Your task to perform on an android device: open app "Yahoo Mail" Image 0: 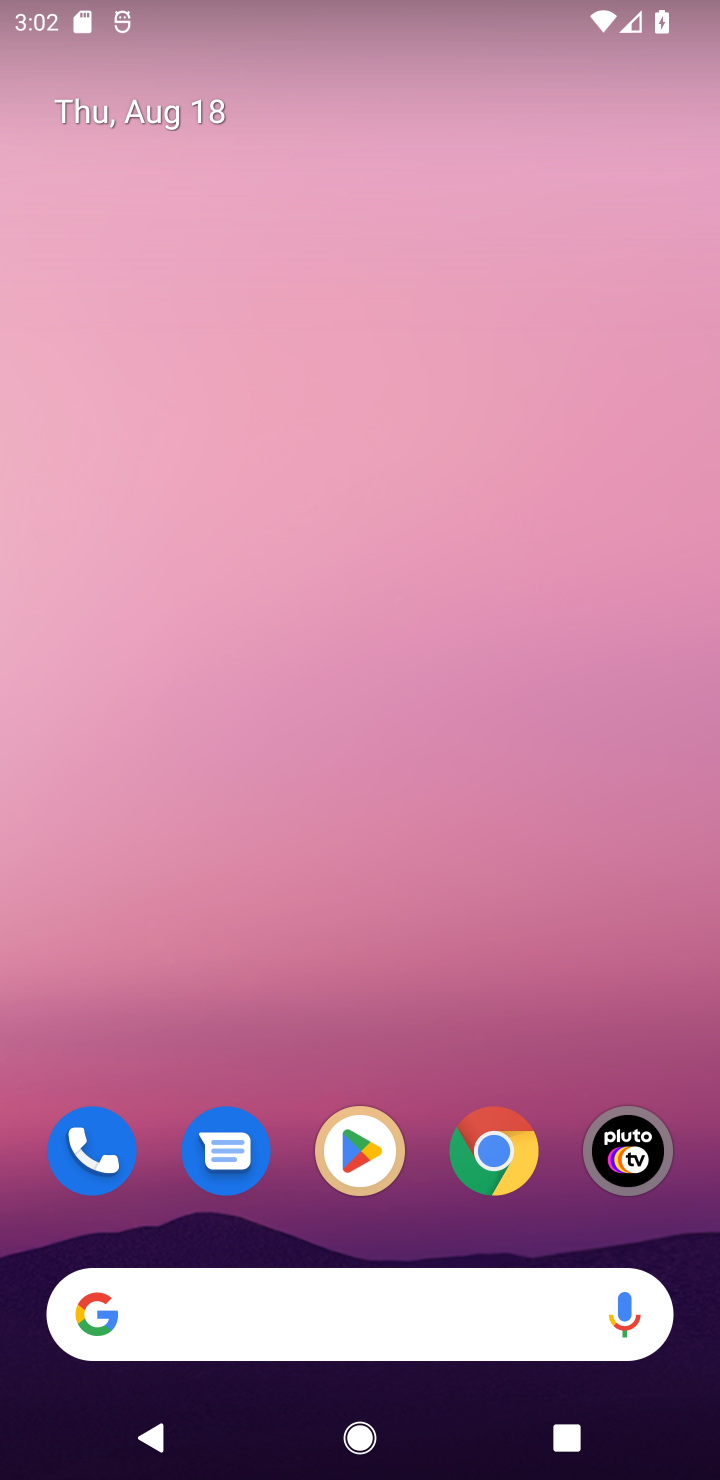
Step 0: drag from (292, 1228) to (190, 41)
Your task to perform on an android device: open app "Yahoo Mail" Image 1: 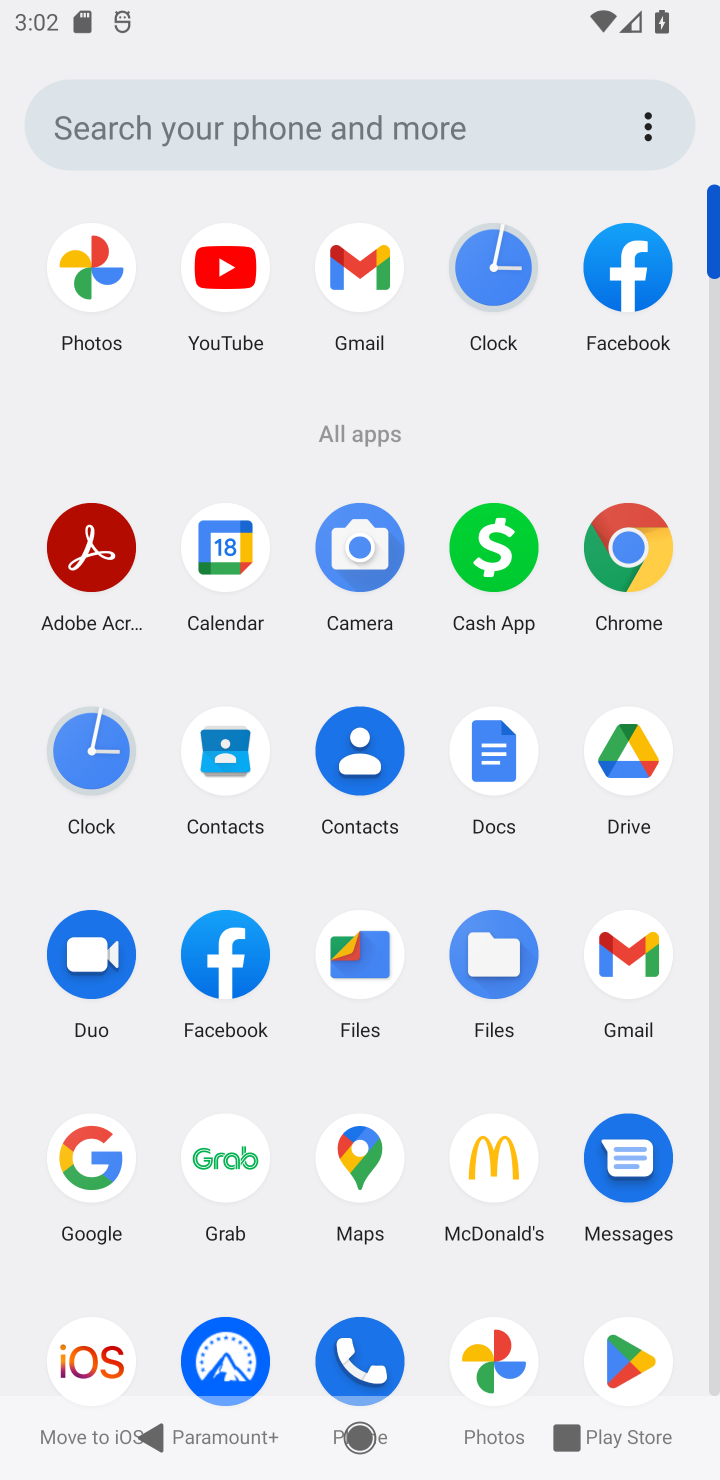
Step 1: click (715, 1396)
Your task to perform on an android device: open app "Yahoo Mail" Image 2: 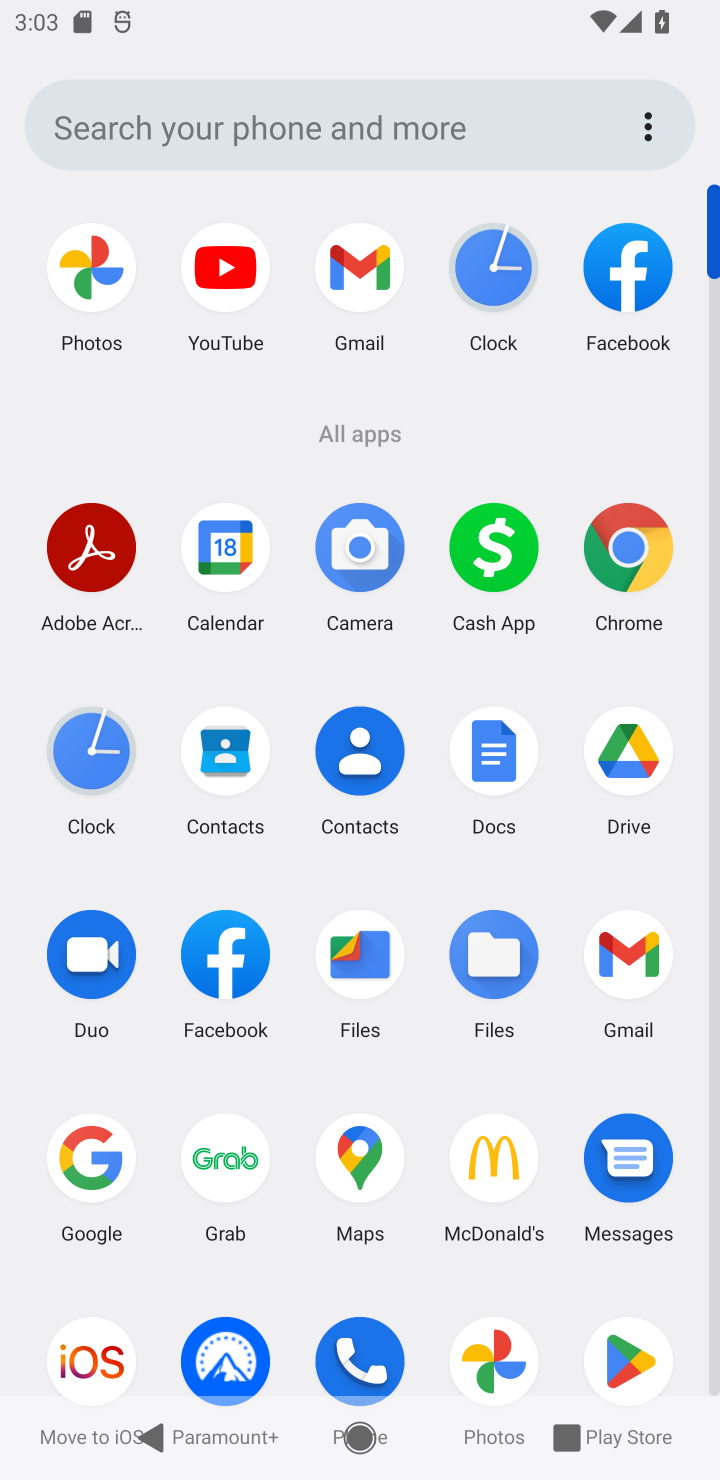
Step 2: click (713, 1381)
Your task to perform on an android device: open app "Yahoo Mail" Image 3: 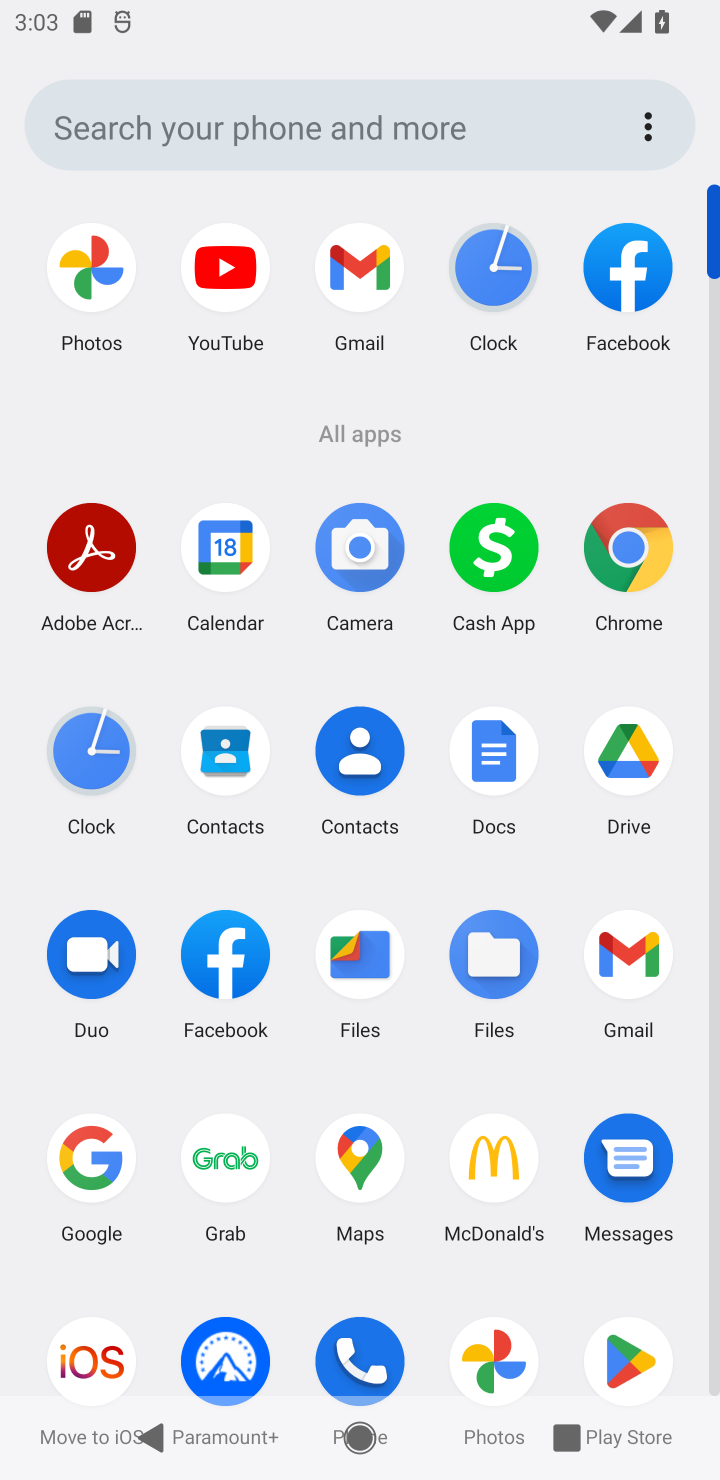
Step 3: click (713, 1381)
Your task to perform on an android device: open app "Yahoo Mail" Image 4: 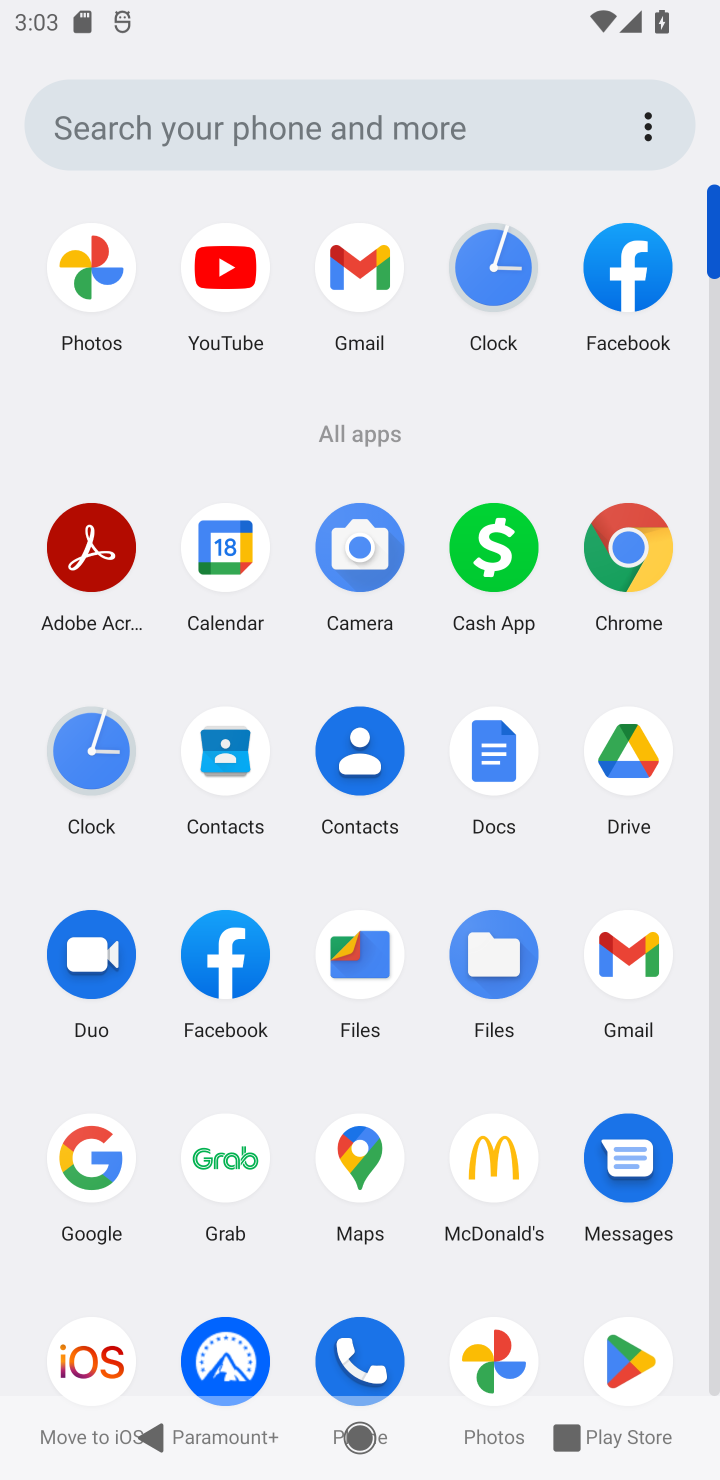
Step 4: click (713, 1381)
Your task to perform on an android device: open app "Yahoo Mail" Image 5: 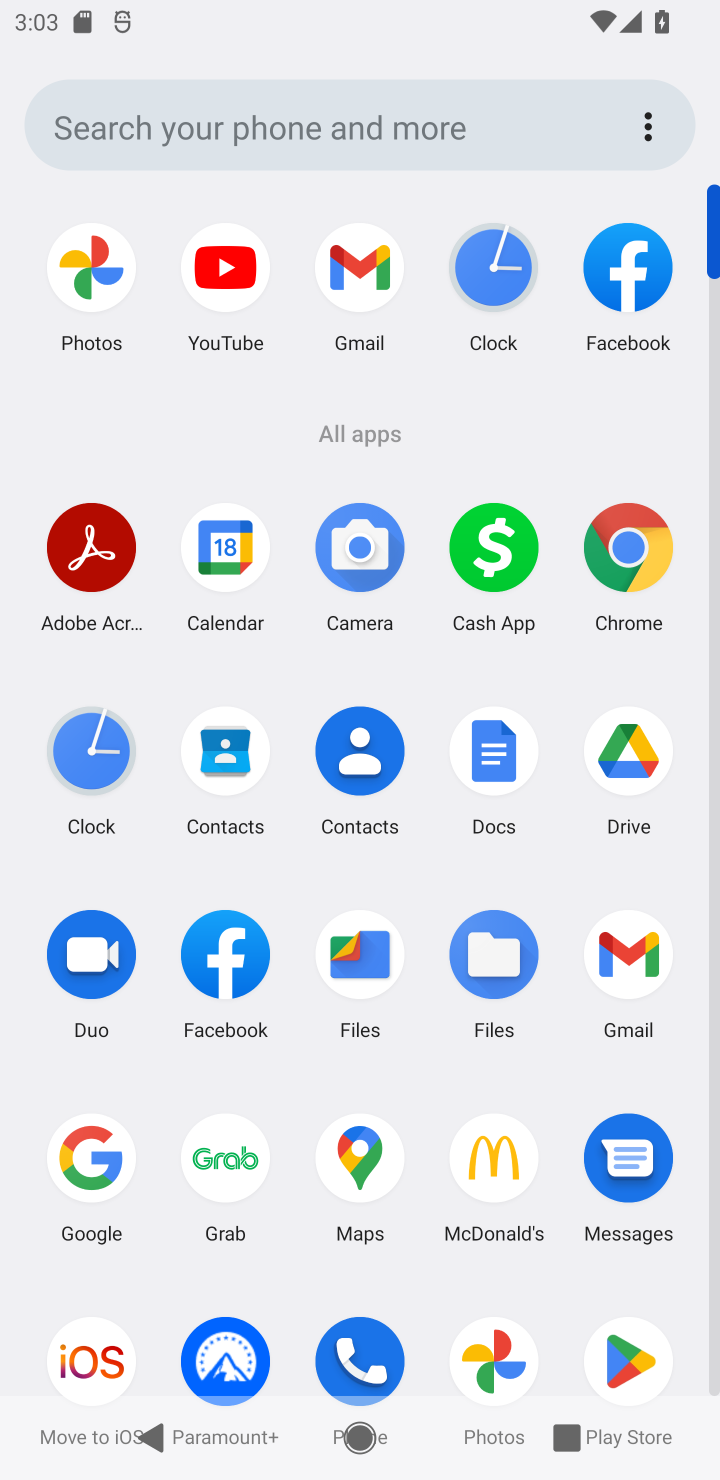
Step 5: drag from (714, 249) to (719, 1322)
Your task to perform on an android device: open app "Yahoo Mail" Image 6: 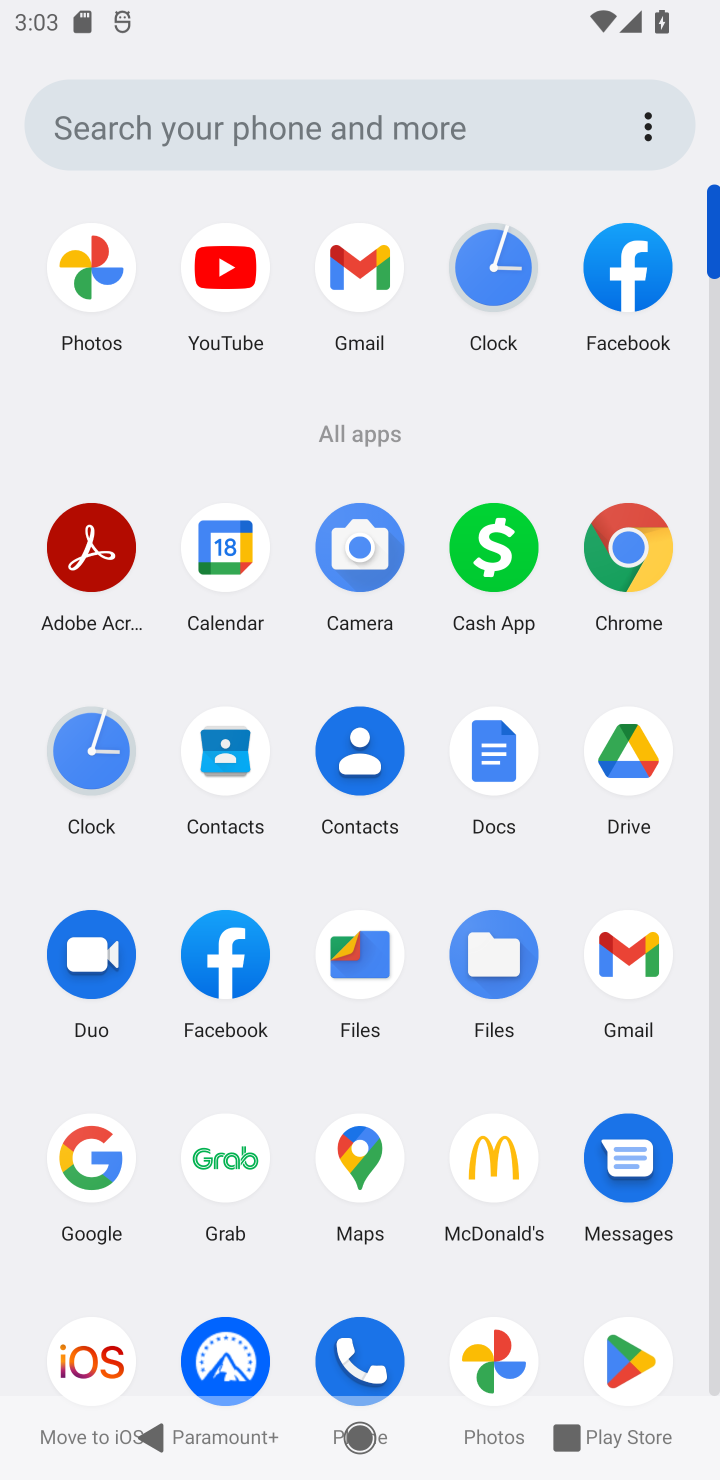
Step 6: click (716, 1433)
Your task to perform on an android device: open app "Yahoo Mail" Image 7: 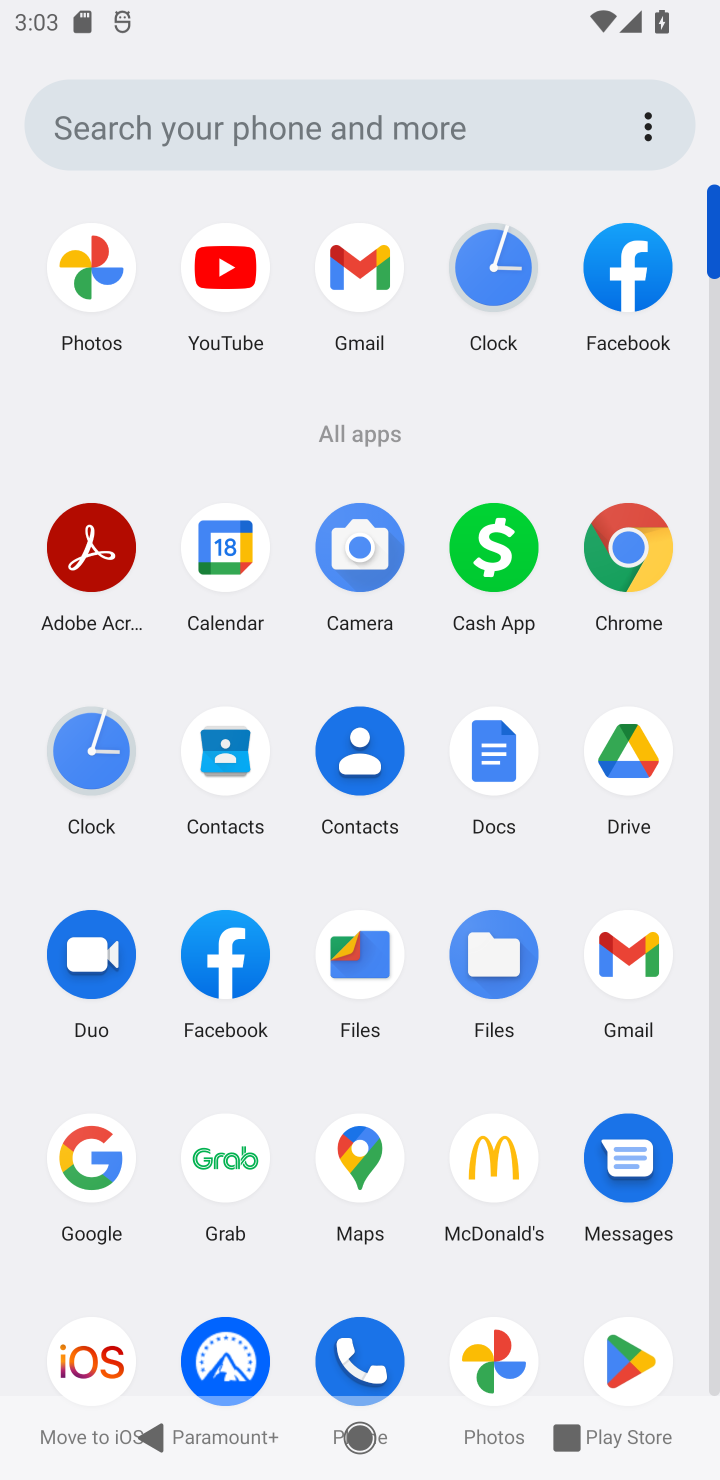
Step 7: click (712, 1383)
Your task to perform on an android device: open app "Yahoo Mail" Image 8: 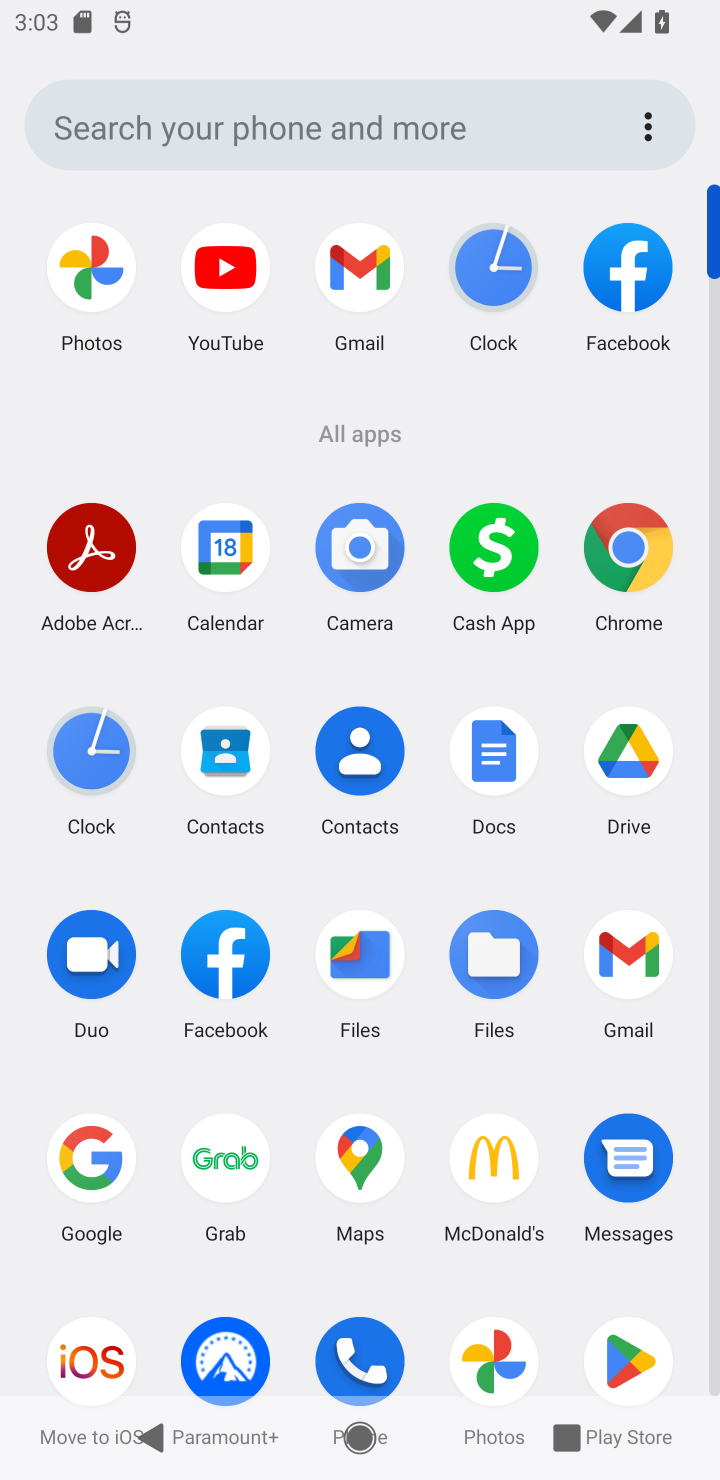
Step 8: drag from (296, 1194) to (362, 112)
Your task to perform on an android device: open app "Yahoo Mail" Image 9: 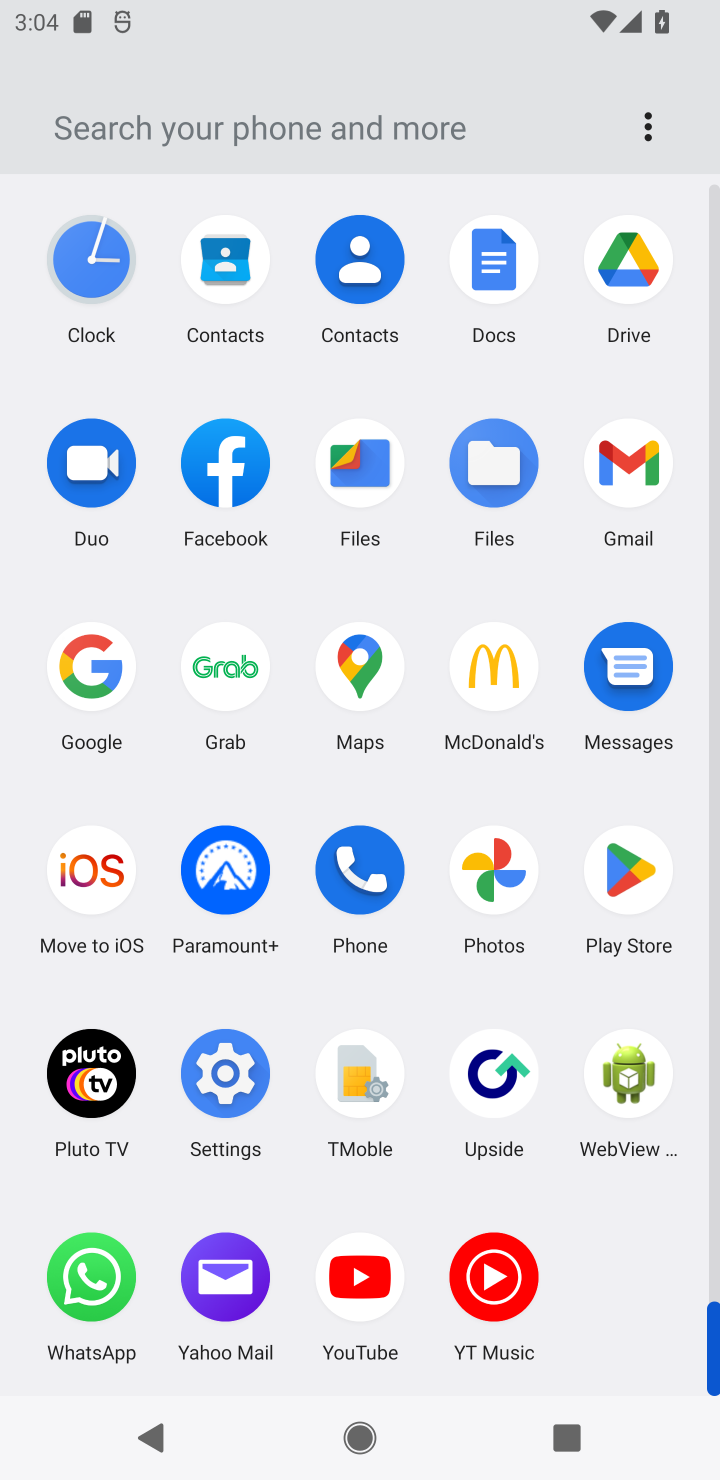
Step 9: click (230, 1265)
Your task to perform on an android device: open app "Yahoo Mail" Image 10: 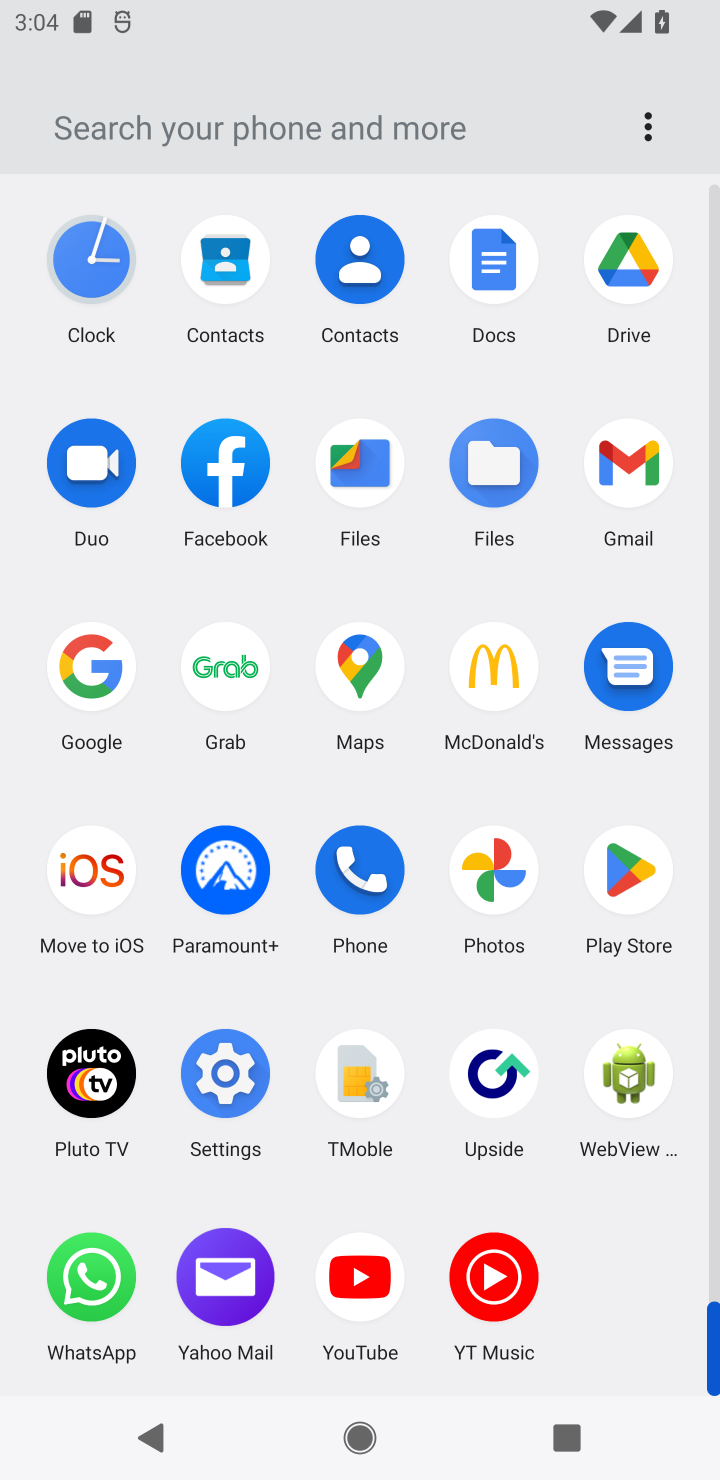
Step 10: task complete